Your task to perform on an android device: turn on airplane mode Image 0: 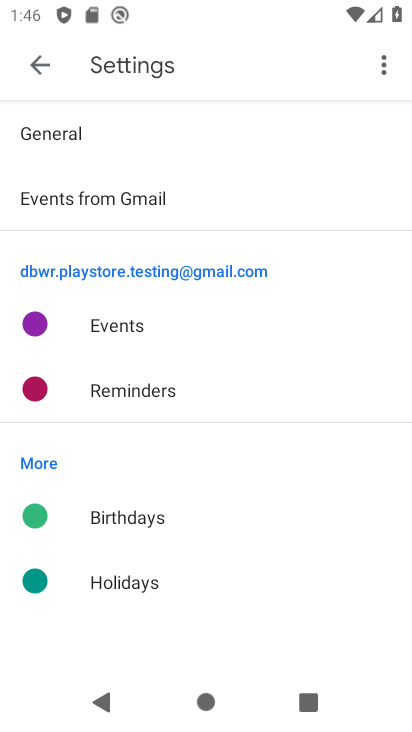
Step 0: press home button
Your task to perform on an android device: turn on airplane mode Image 1: 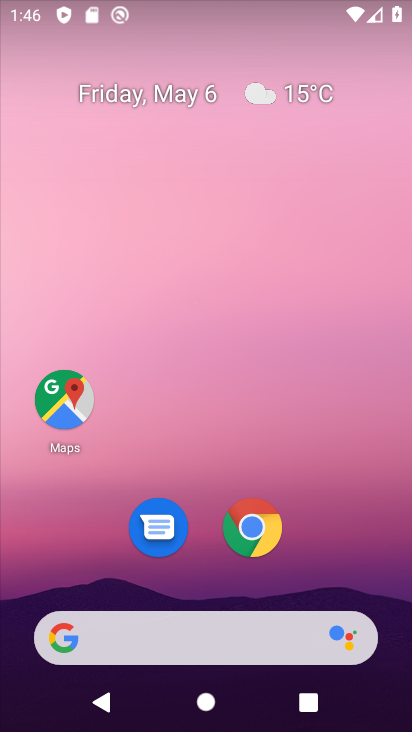
Step 1: drag from (342, 568) to (132, 117)
Your task to perform on an android device: turn on airplane mode Image 2: 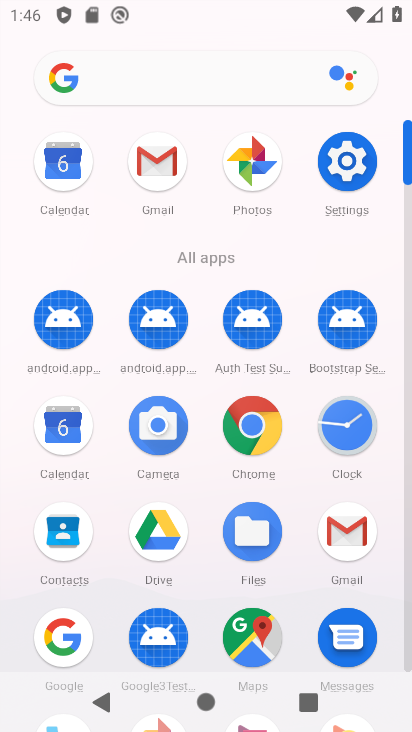
Step 2: click (353, 163)
Your task to perform on an android device: turn on airplane mode Image 3: 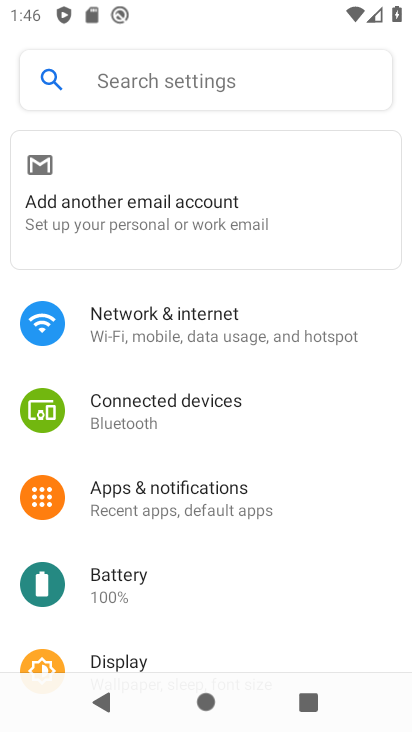
Step 3: drag from (167, 604) to (164, 376)
Your task to perform on an android device: turn on airplane mode Image 4: 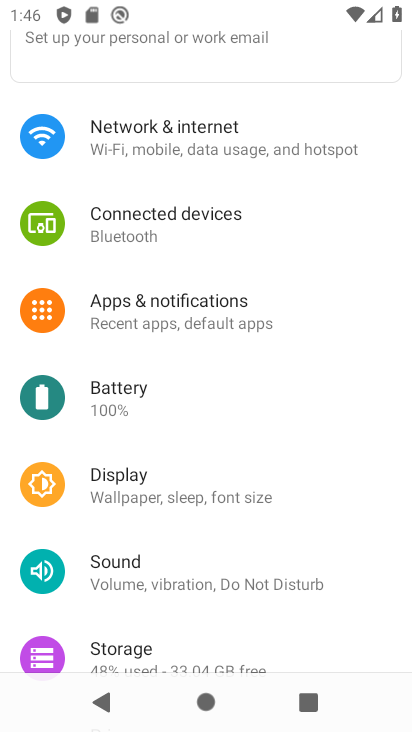
Step 4: click (174, 134)
Your task to perform on an android device: turn on airplane mode Image 5: 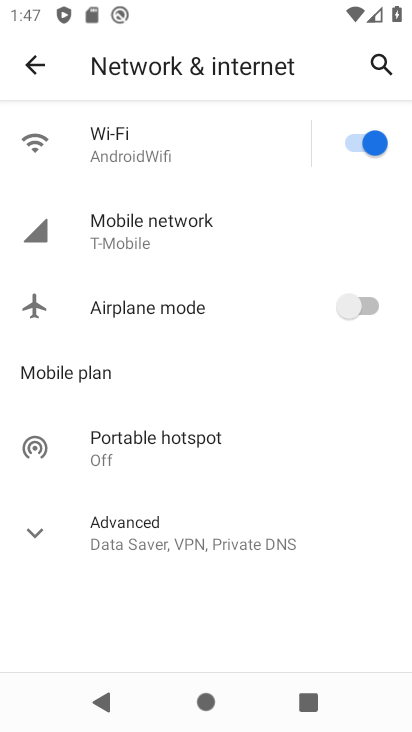
Step 5: click (368, 311)
Your task to perform on an android device: turn on airplane mode Image 6: 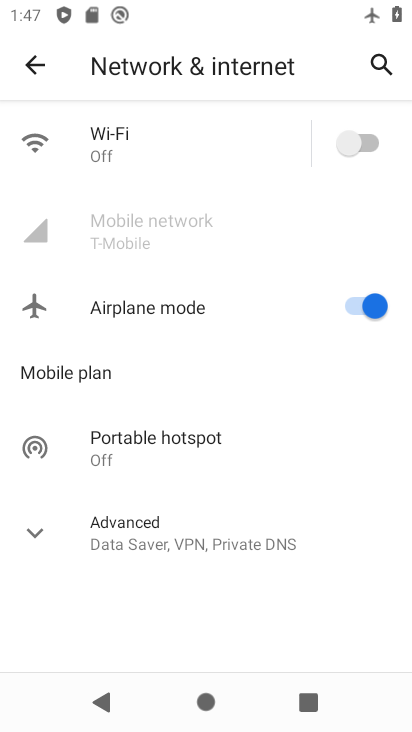
Step 6: task complete